Your task to perform on an android device: Open accessibility settings Image 0: 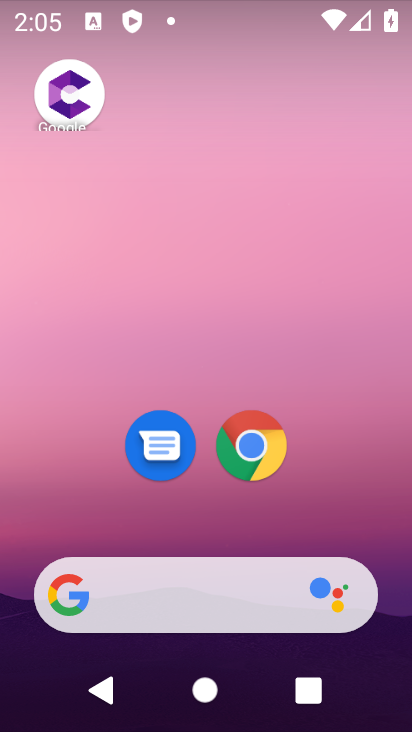
Step 0: drag from (175, 528) to (203, 171)
Your task to perform on an android device: Open accessibility settings Image 1: 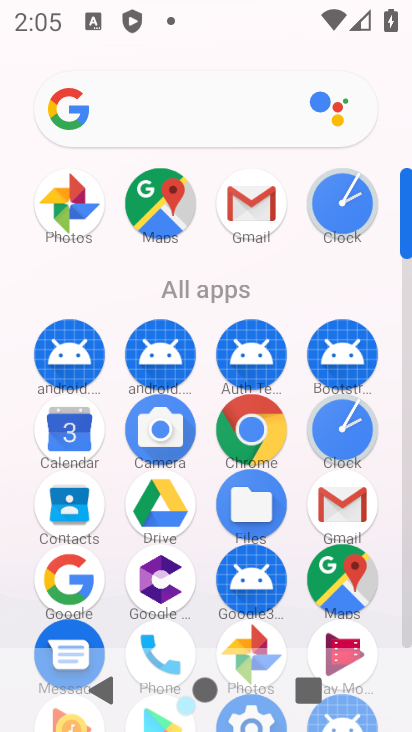
Step 1: drag from (199, 530) to (235, 101)
Your task to perform on an android device: Open accessibility settings Image 2: 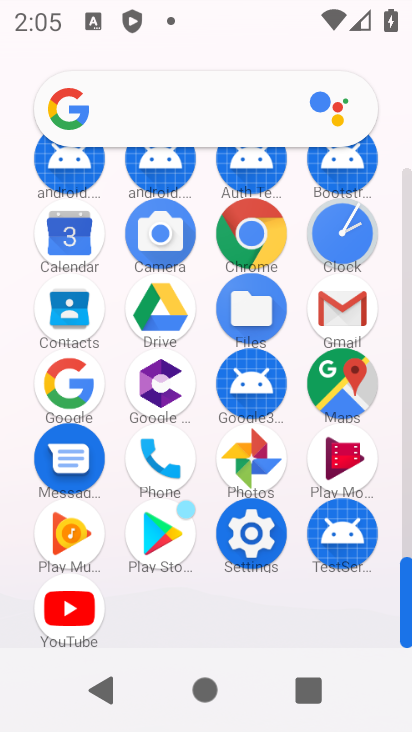
Step 2: click (267, 548)
Your task to perform on an android device: Open accessibility settings Image 3: 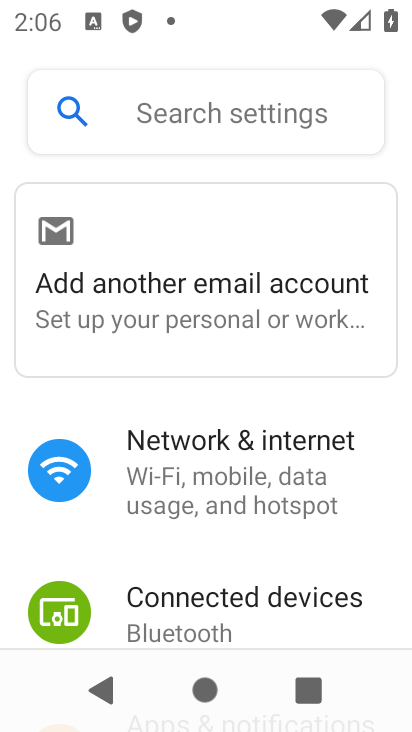
Step 3: drag from (267, 548) to (316, 166)
Your task to perform on an android device: Open accessibility settings Image 4: 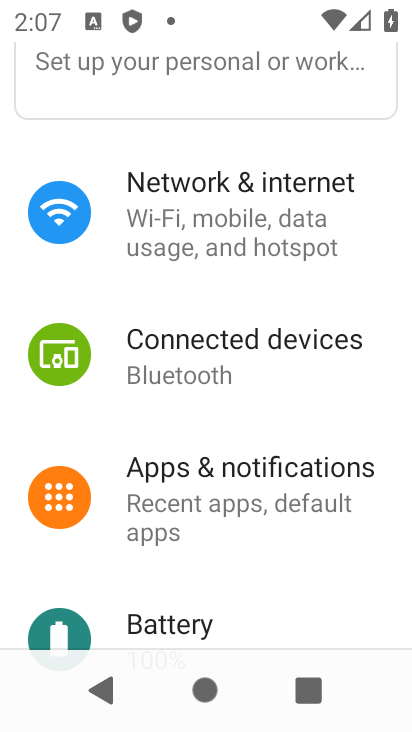
Step 4: drag from (115, 583) to (220, 156)
Your task to perform on an android device: Open accessibility settings Image 5: 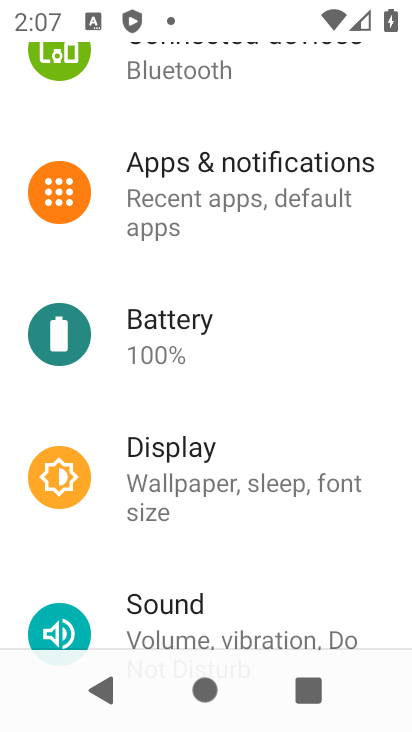
Step 5: drag from (254, 605) to (204, 1)
Your task to perform on an android device: Open accessibility settings Image 6: 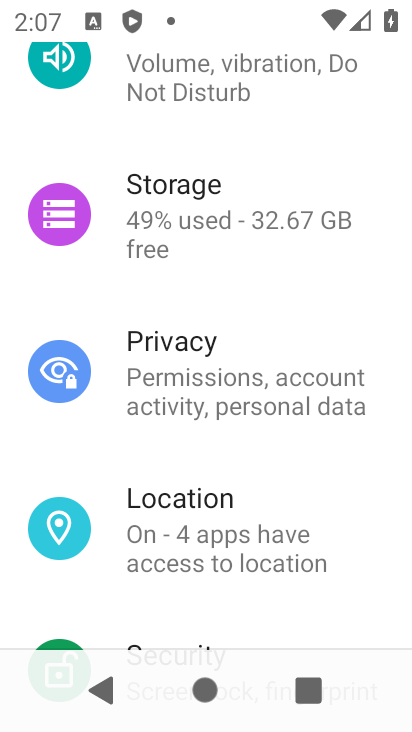
Step 6: drag from (257, 530) to (326, 30)
Your task to perform on an android device: Open accessibility settings Image 7: 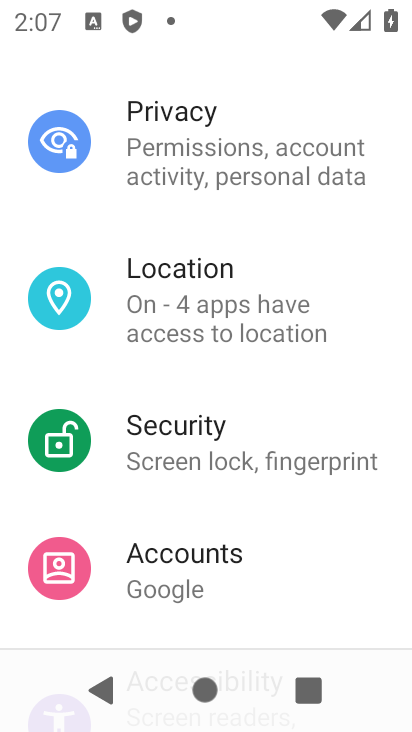
Step 7: drag from (114, 575) to (162, 99)
Your task to perform on an android device: Open accessibility settings Image 8: 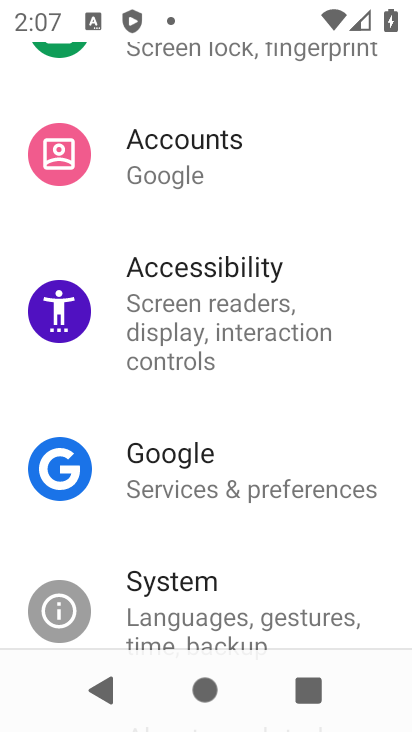
Step 8: click (191, 311)
Your task to perform on an android device: Open accessibility settings Image 9: 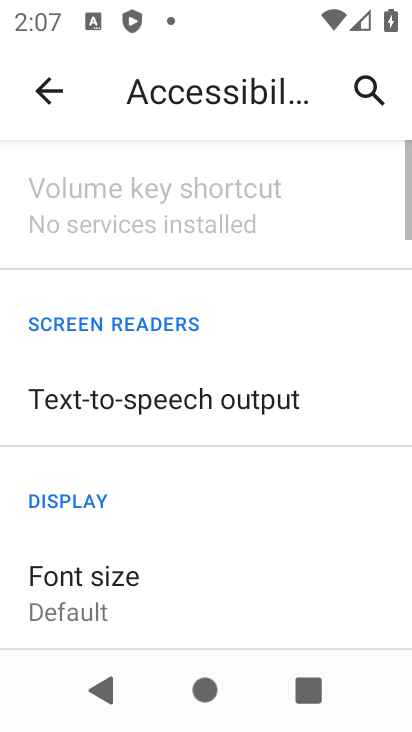
Step 9: task complete